Your task to perform on an android device: Open display settings Image 0: 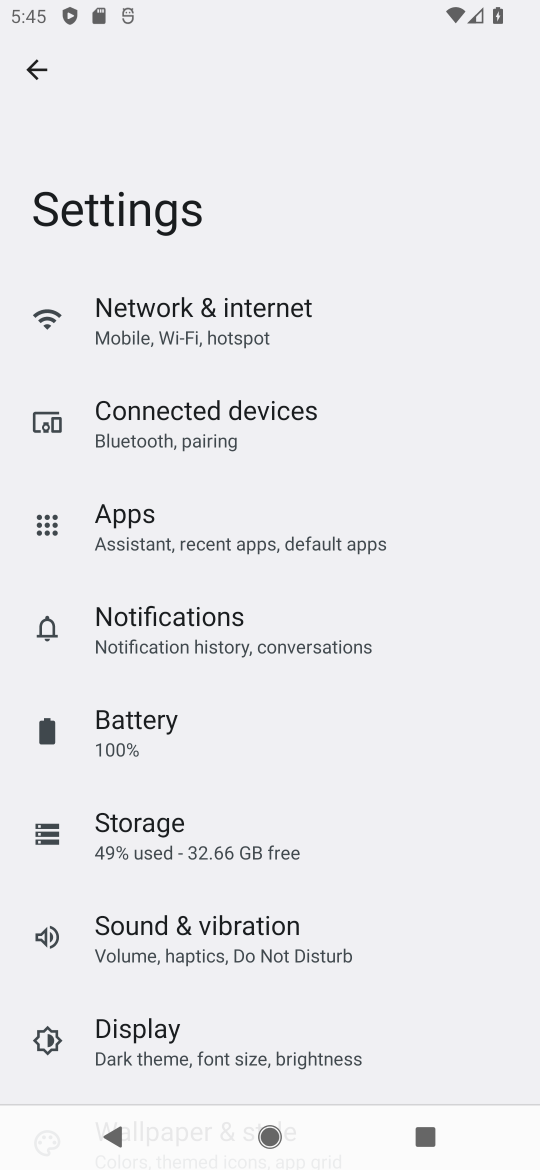
Step 0: click (150, 1045)
Your task to perform on an android device: Open display settings Image 1: 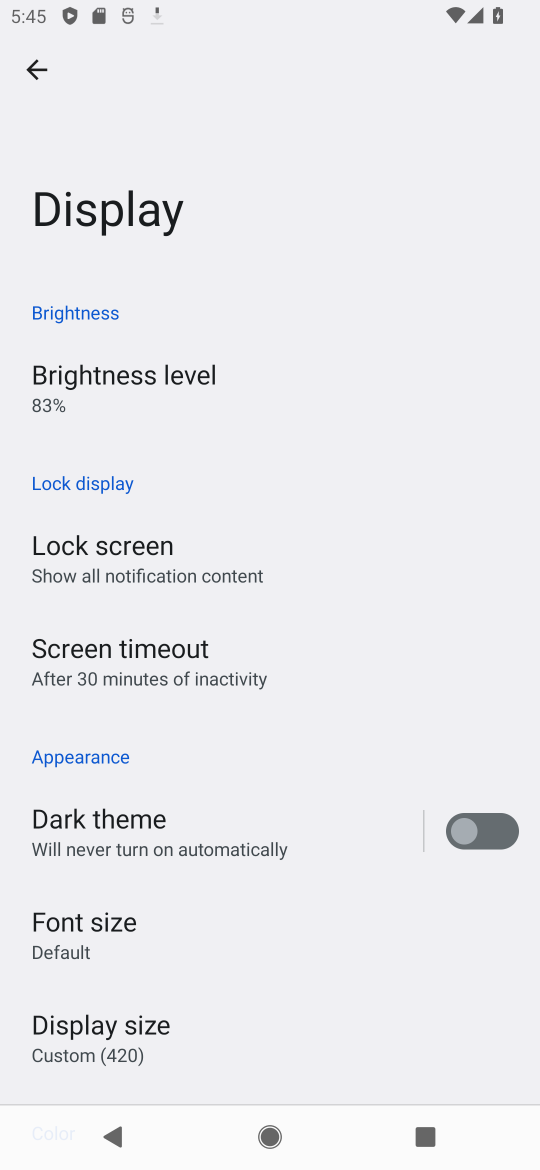
Step 1: task complete